Your task to perform on an android device: Open wifi settings Image 0: 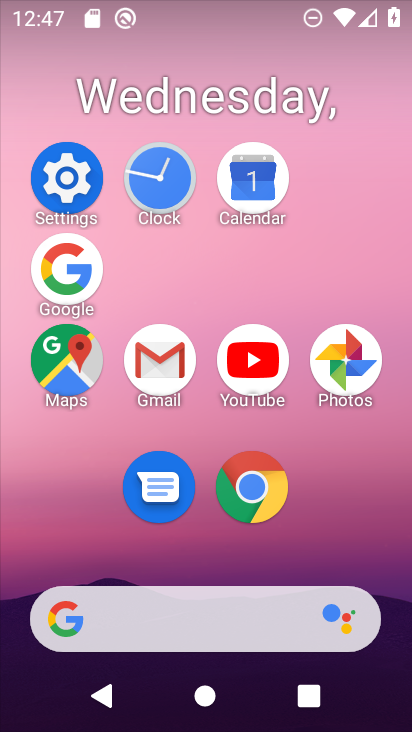
Step 0: click (87, 188)
Your task to perform on an android device: Open wifi settings Image 1: 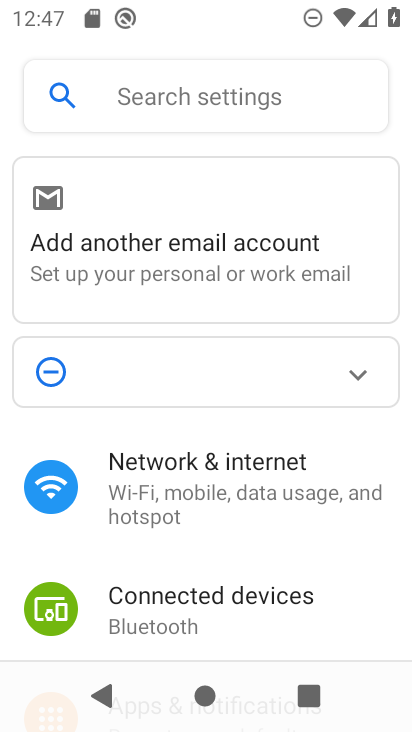
Step 1: click (236, 464)
Your task to perform on an android device: Open wifi settings Image 2: 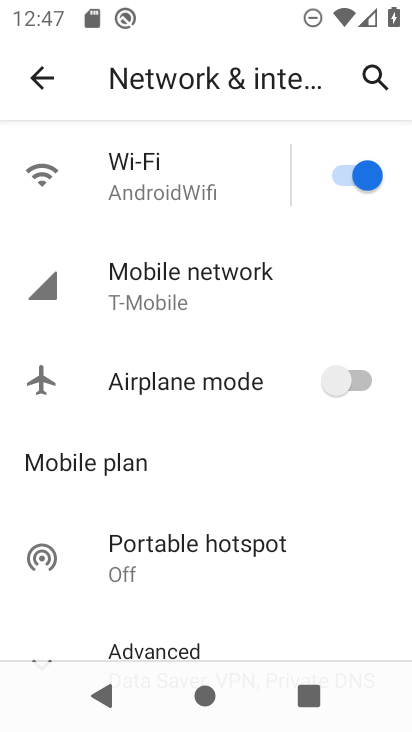
Step 2: click (163, 167)
Your task to perform on an android device: Open wifi settings Image 3: 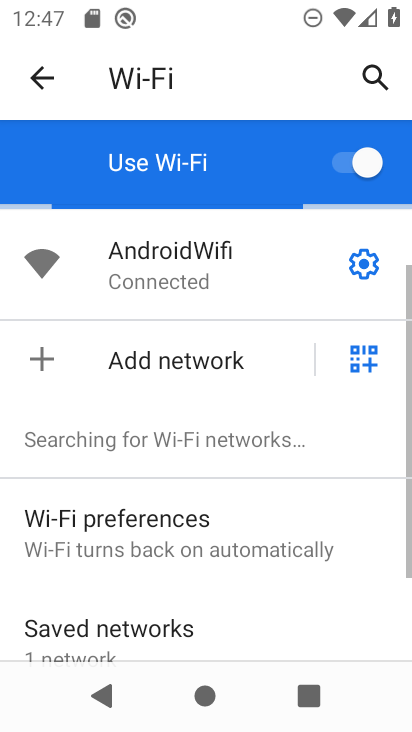
Step 3: click (367, 251)
Your task to perform on an android device: Open wifi settings Image 4: 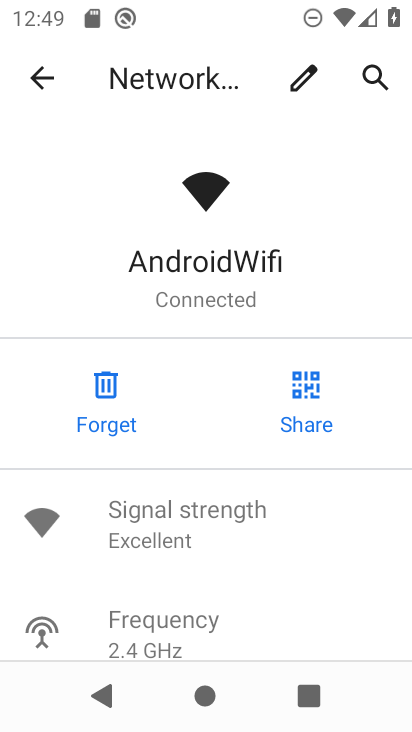
Step 4: task complete